Your task to perform on an android device: Show me popular videos on Youtube Image 0: 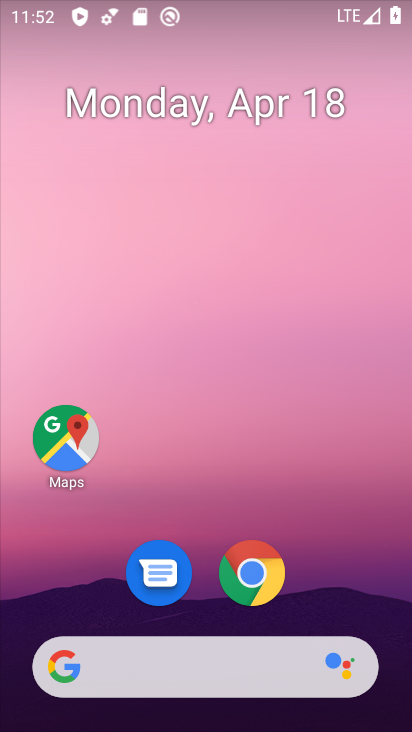
Step 0: drag from (336, 596) to (330, 165)
Your task to perform on an android device: Show me popular videos on Youtube Image 1: 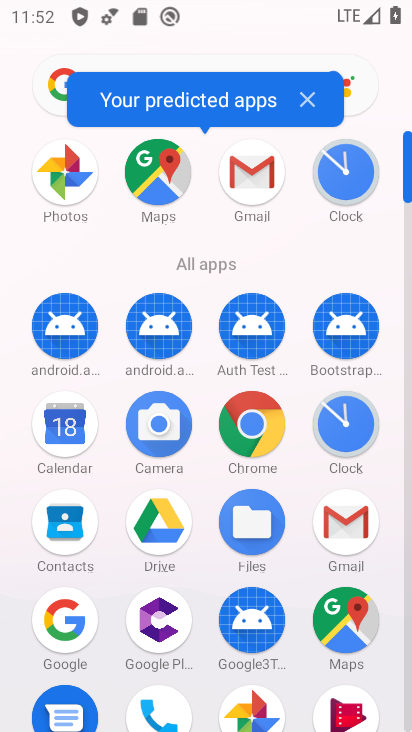
Step 1: drag from (307, 286) to (303, 28)
Your task to perform on an android device: Show me popular videos on Youtube Image 2: 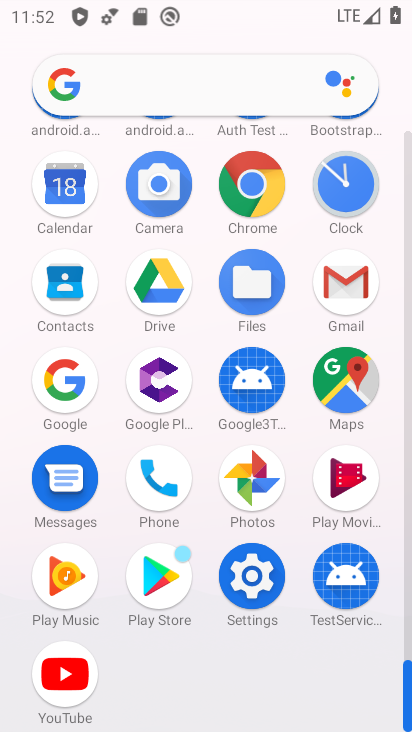
Step 2: click (59, 673)
Your task to perform on an android device: Show me popular videos on Youtube Image 3: 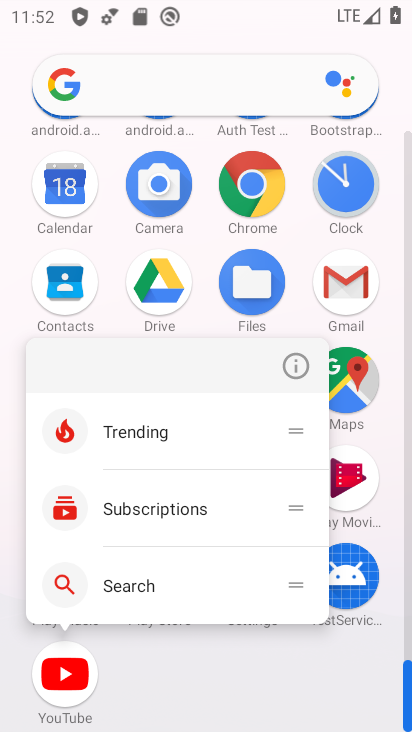
Step 3: click (67, 679)
Your task to perform on an android device: Show me popular videos on Youtube Image 4: 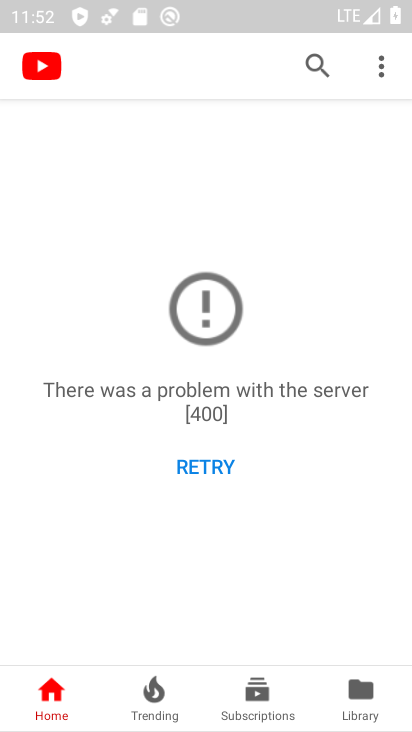
Step 4: task complete